Your task to perform on an android device: Open eBay Image 0: 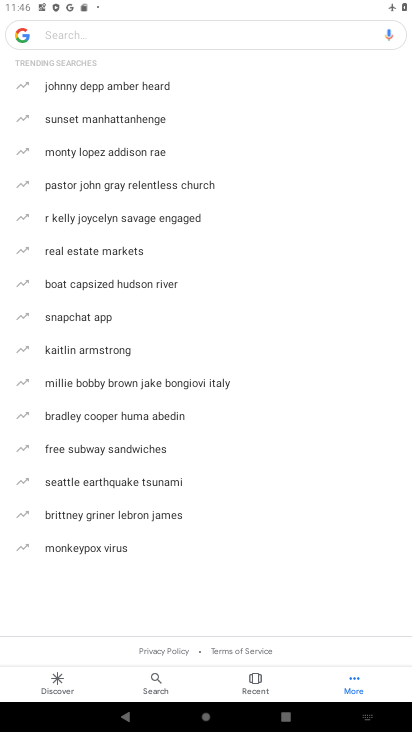
Step 0: press home button
Your task to perform on an android device: Open eBay Image 1: 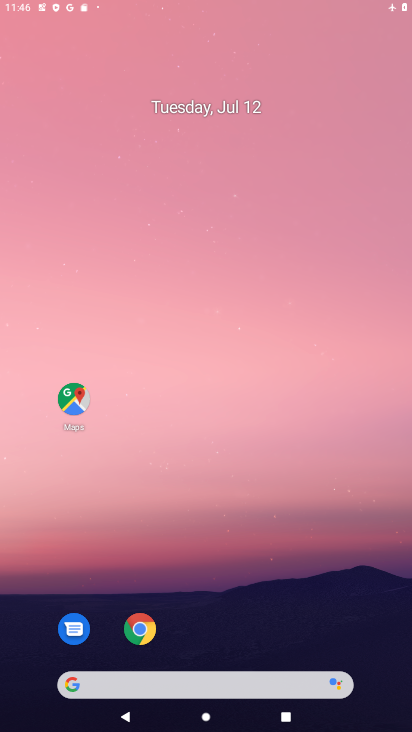
Step 1: drag from (277, 670) to (270, 188)
Your task to perform on an android device: Open eBay Image 2: 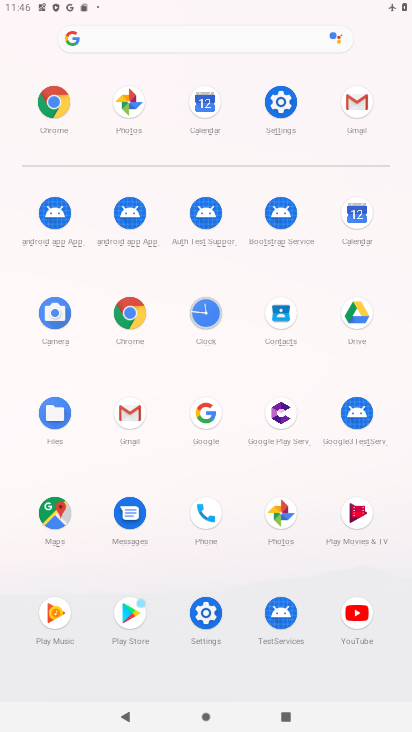
Step 2: click (43, 92)
Your task to perform on an android device: Open eBay Image 3: 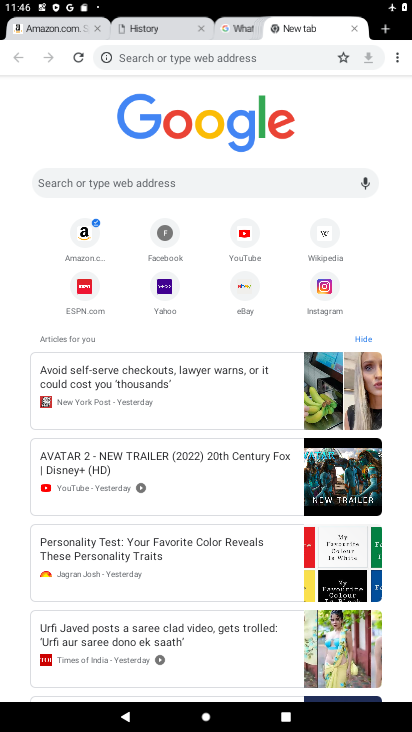
Step 3: click (250, 287)
Your task to perform on an android device: Open eBay Image 4: 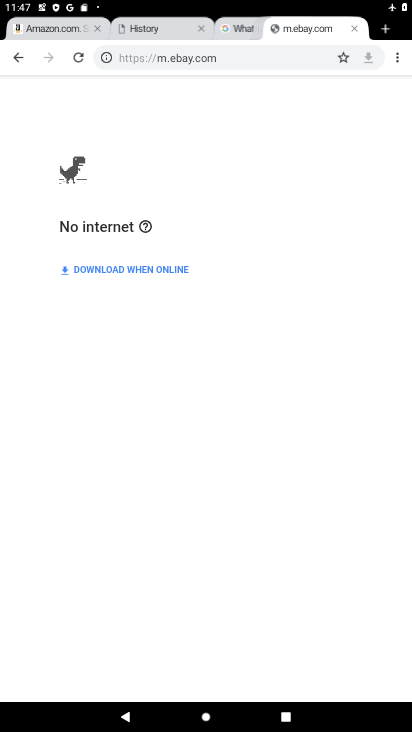
Step 4: task complete